Your task to perform on an android device: Go to Wikipedia Image 0: 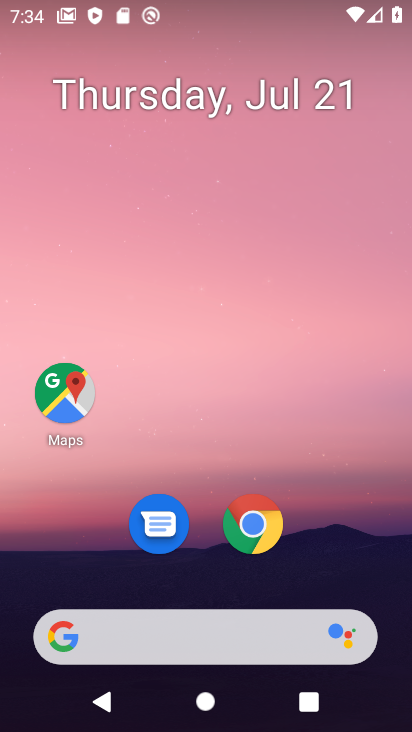
Step 0: click (260, 535)
Your task to perform on an android device: Go to Wikipedia Image 1: 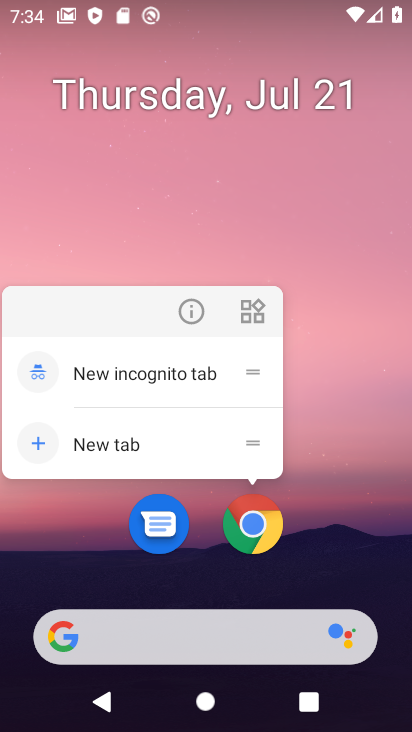
Step 1: click (259, 518)
Your task to perform on an android device: Go to Wikipedia Image 2: 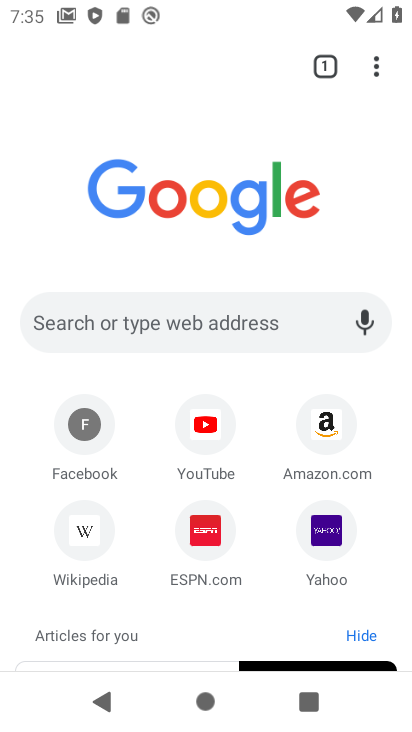
Step 2: click (87, 545)
Your task to perform on an android device: Go to Wikipedia Image 3: 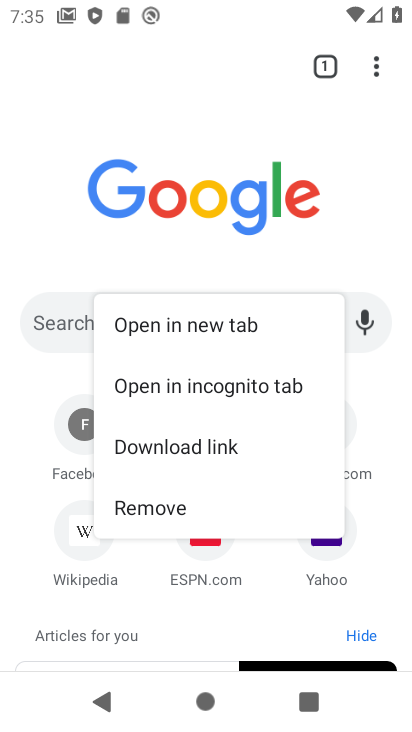
Step 3: click (86, 538)
Your task to perform on an android device: Go to Wikipedia Image 4: 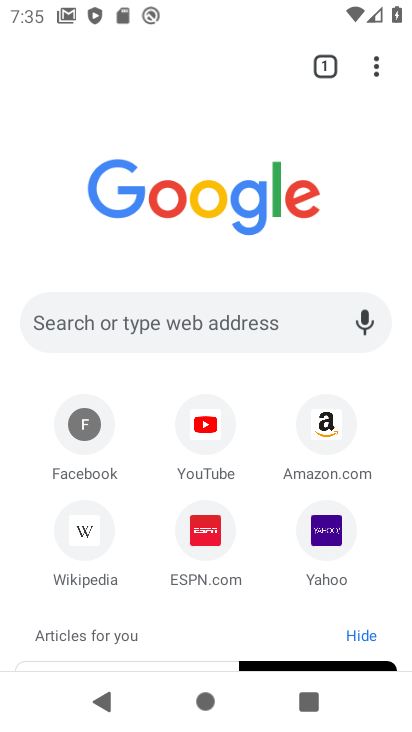
Step 4: click (80, 528)
Your task to perform on an android device: Go to Wikipedia Image 5: 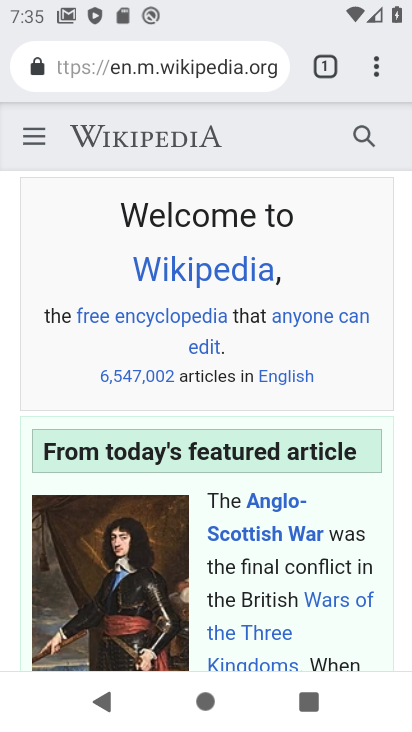
Step 5: task complete